Your task to perform on an android device: check google app version Image 0: 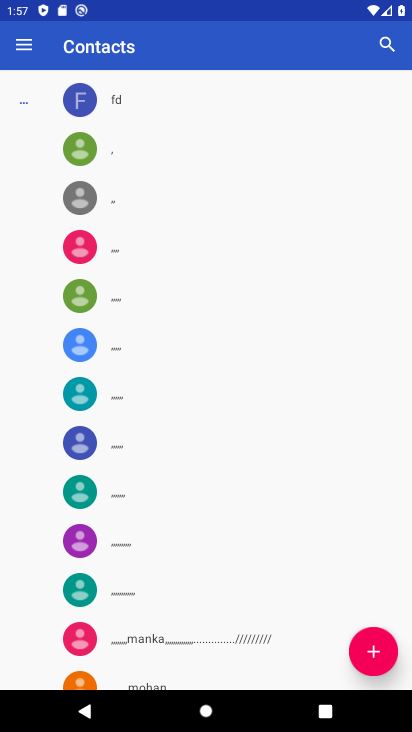
Step 0: press home button
Your task to perform on an android device: check google app version Image 1: 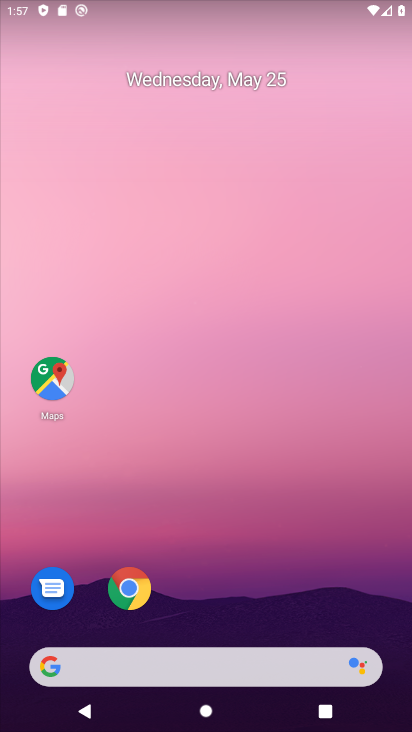
Step 1: drag from (209, 604) to (315, 179)
Your task to perform on an android device: check google app version Image 2: 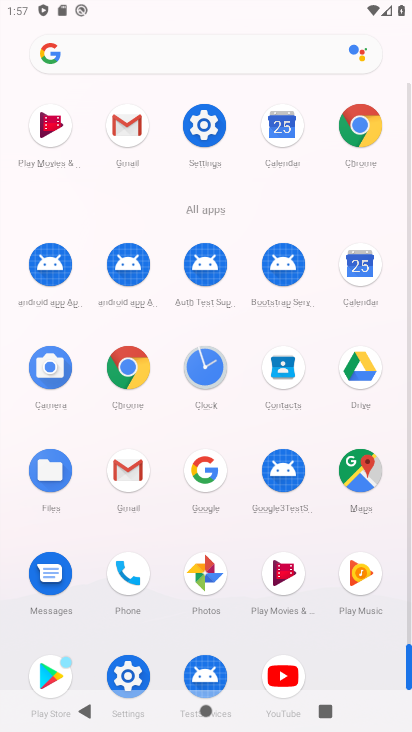
Step 2: click (200, 478)
Your task to perform on an android device: check google app version Image 3: 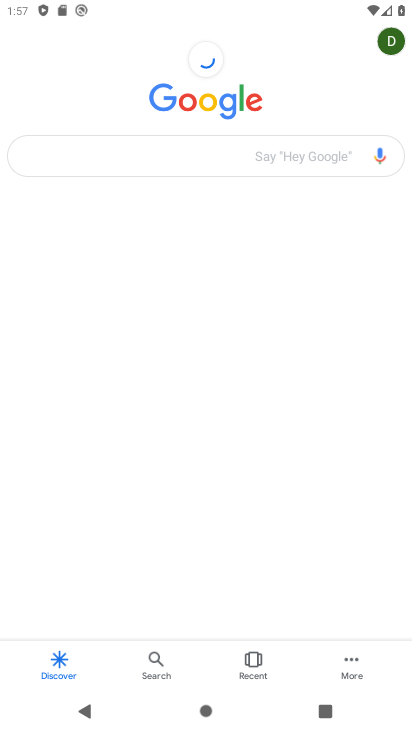
Step 3: click (349, 663)
Your task to perform on an android device: check google app version Image 4: 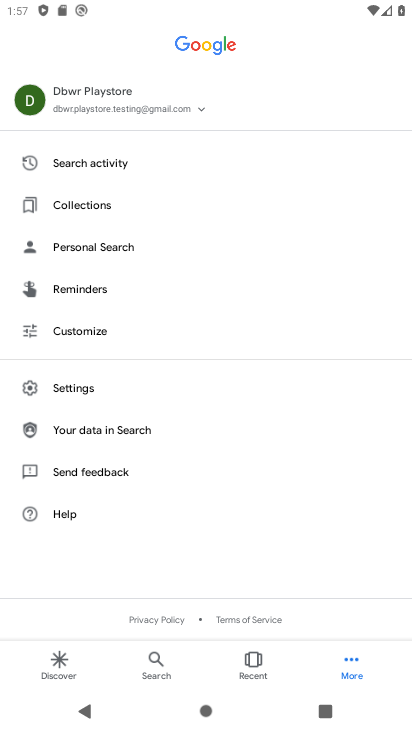
Step 4: click (60, 381)
Your task to perform on an android device: check google app version Image 5: 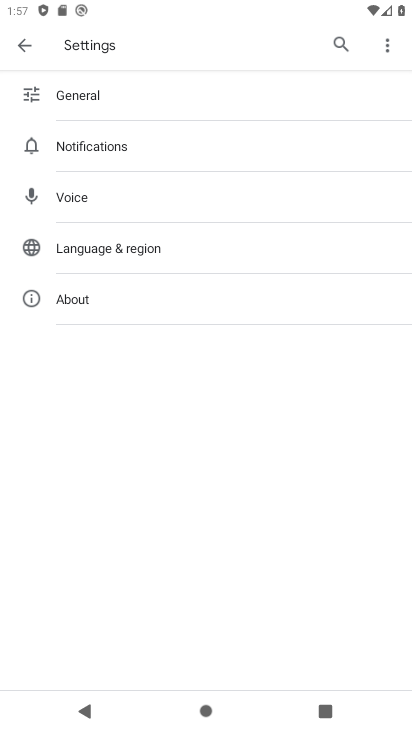
Step 5: click (59, 102)
Your task to perform on an android device: check google app version Image 6: 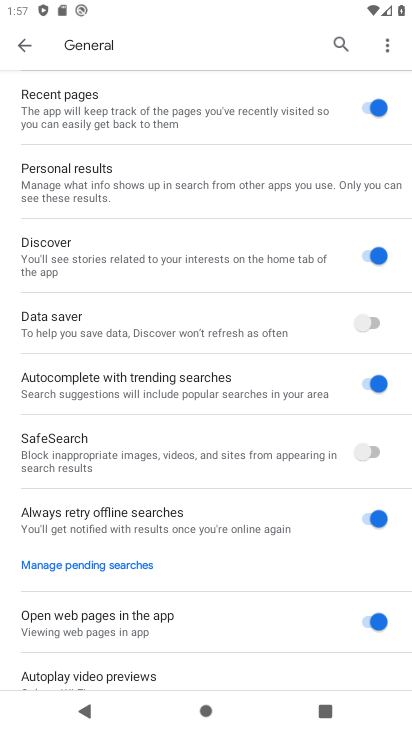
Step 6: drag from (137, 551) to (269, 34)
Your task to perform on an android device: check google app version Image 7: 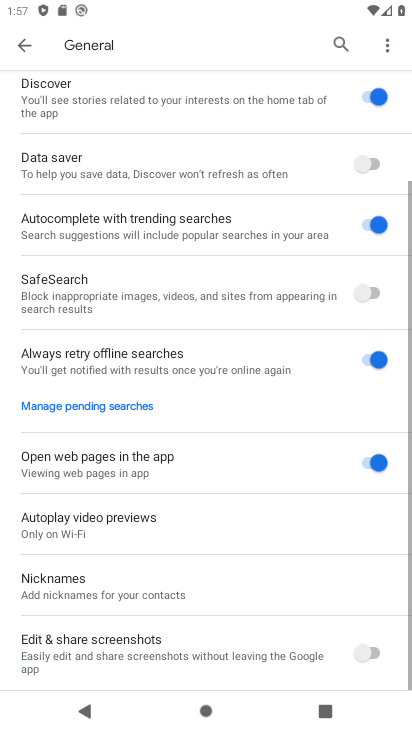
Step 7: drag from (169, 483) to (272, 103)
Your task to perform on an android device: check google app version Image 8: 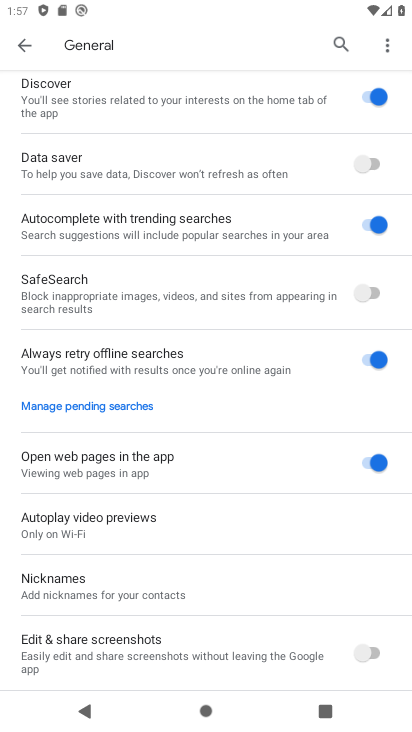
Step 8: click (38, 52)
Your task to perform on an android device: check google app version Image 9: 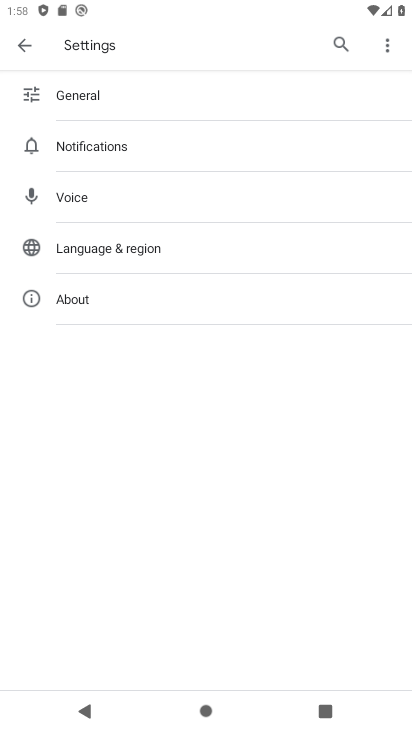
Step 9: click (77, 305)
Your task to perform on an android device: check google app version Image 10: 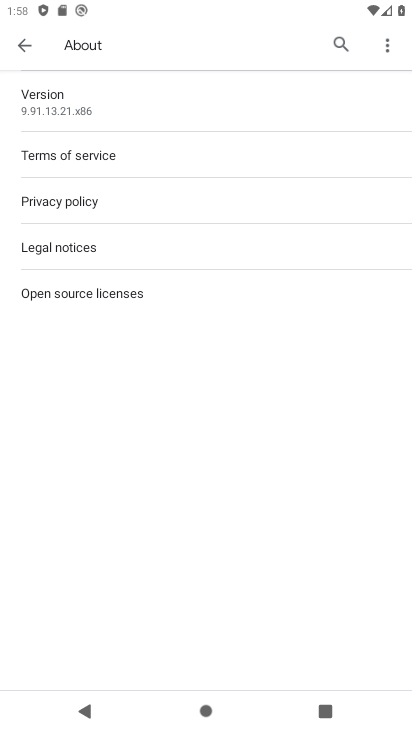
Step 10: click (82, 87)
Your task to perform on an android device: check google app version Image 11: 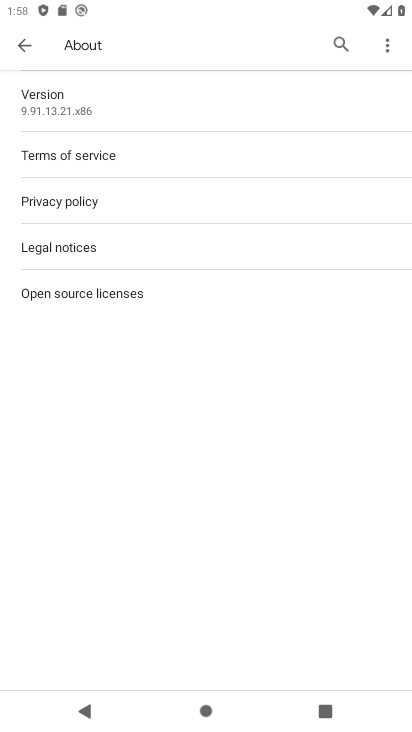
Step 11: task complete